Your task to perform on an android device: empty trash in google photos Image 0: 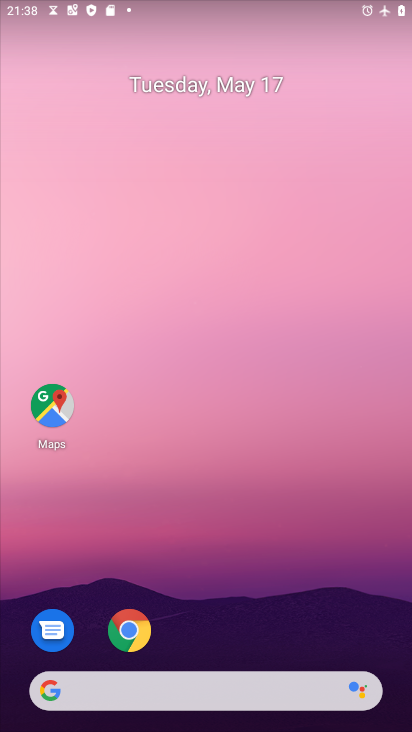
Step 0: drag from (185, 631) to (126, 257)
Your task to perform on an android device: empty trash in google photos Image 1: 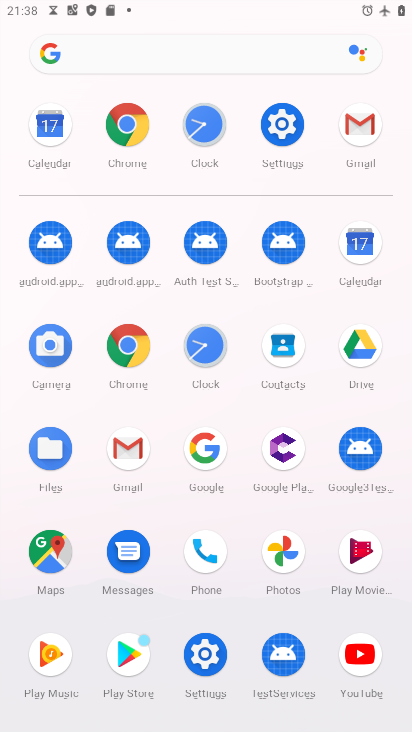
Step 1: click (287, 552)
Your task to perform on an android device: empty trash in google photos Image 2: 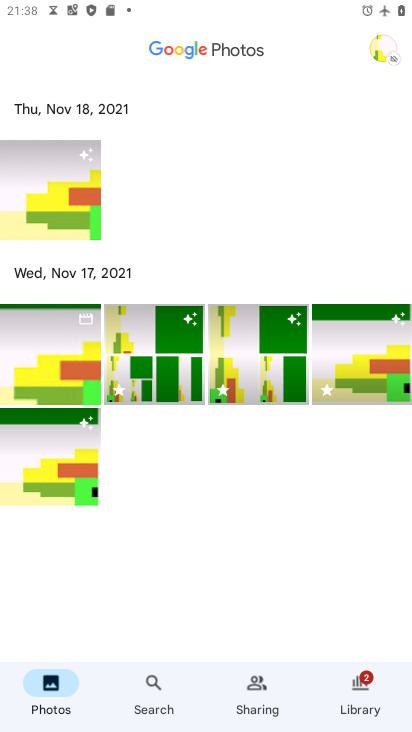
Step 2: click (380, 46)
Your task to perform on an android device: empty trash in google photos Image 3: 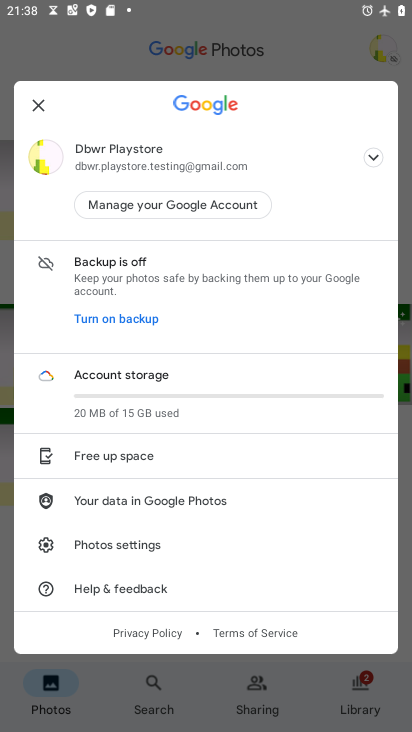
Step 3: click (372, 715)
Your task to perform on an android device: empty trash in google photos Image 4: 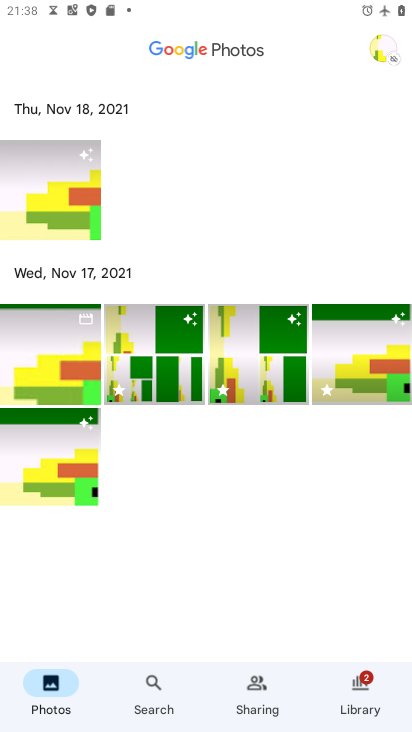
Step 4: click (362, 697)
Your task to perform on an android device: empty trash in google photos Image 5: 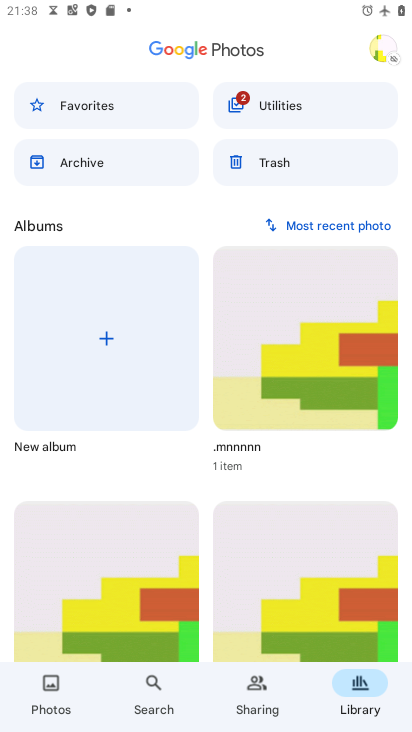
Step 5: click (302, 169)
Your task to perform on an android device: empty trash in google photos Image 6: 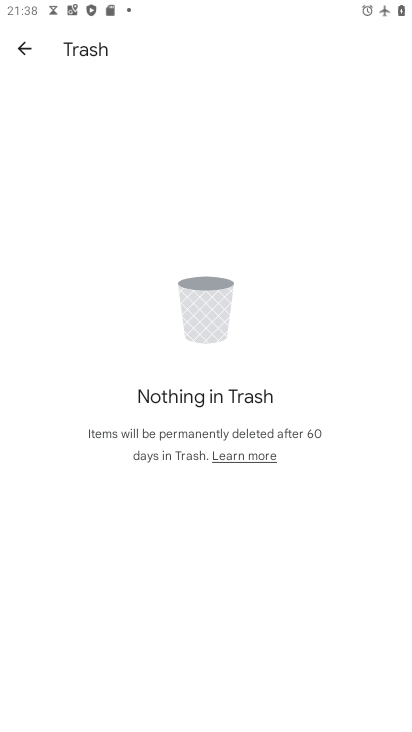
Step 6: task complete